Your task to perform on an android device: open chrome privacy settings Image 0: 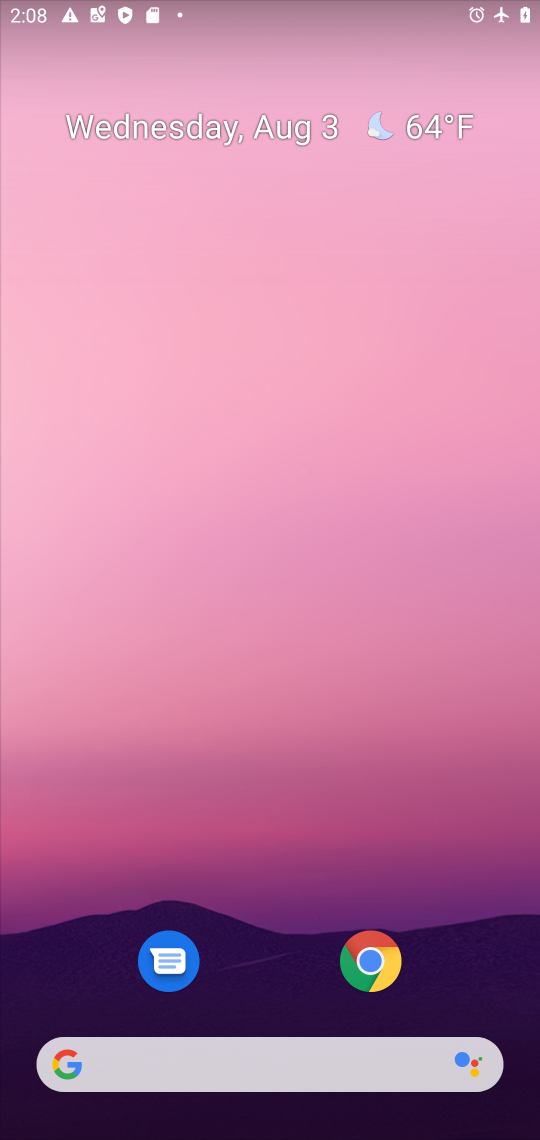
Step 0: click (375, 970)
Your task to perform on an android device: open chrome privacy settings Image 1: 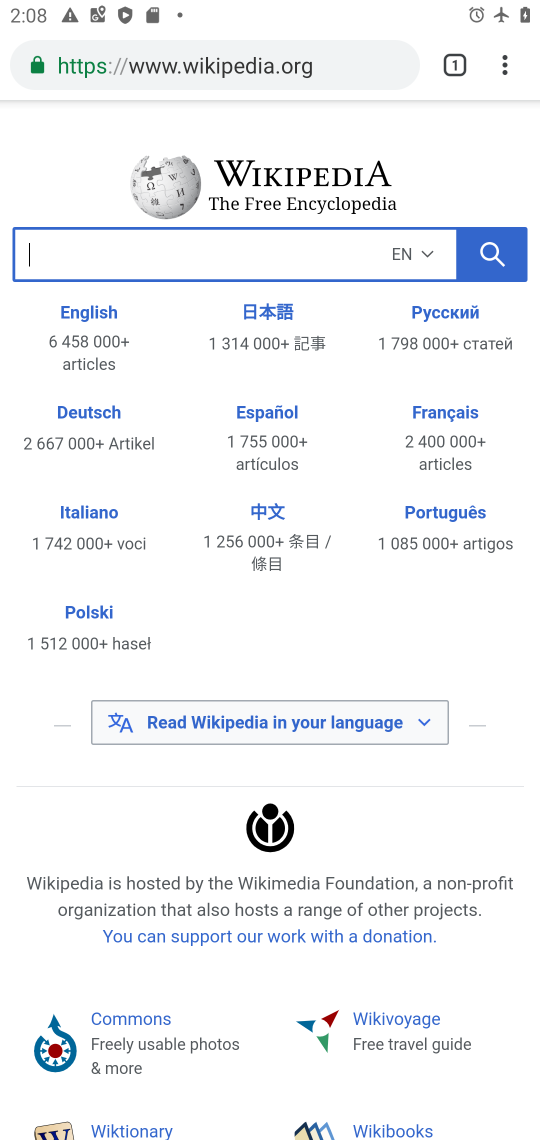
Step 1: click (505, 71)
Your task to perform on an android device: open chrome privacy settings Image 2: 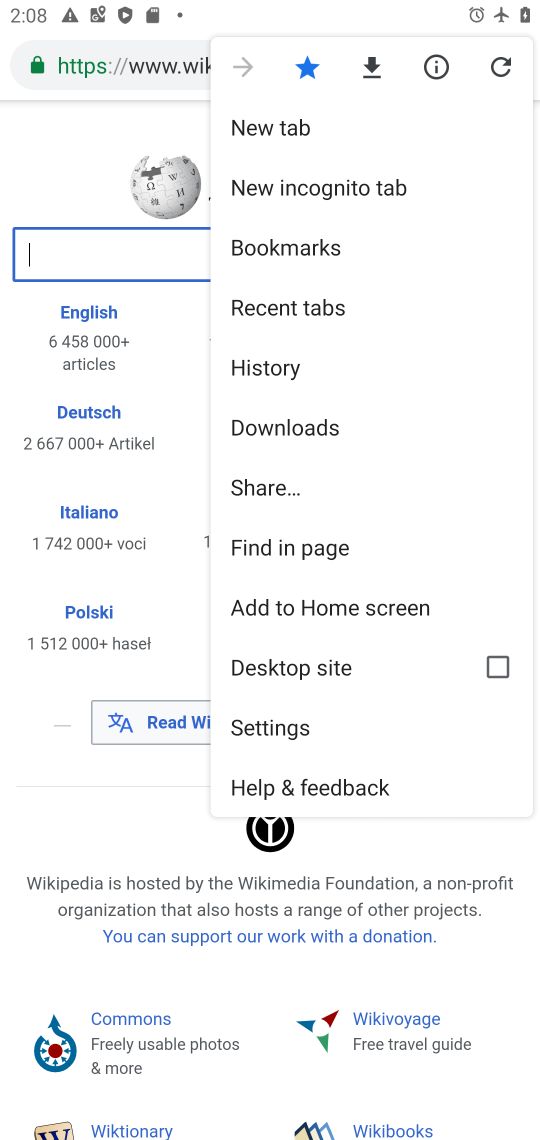
Step 2: click (249, 728)
Your task to perform on an android device: open chrome privacy settings Image 3: 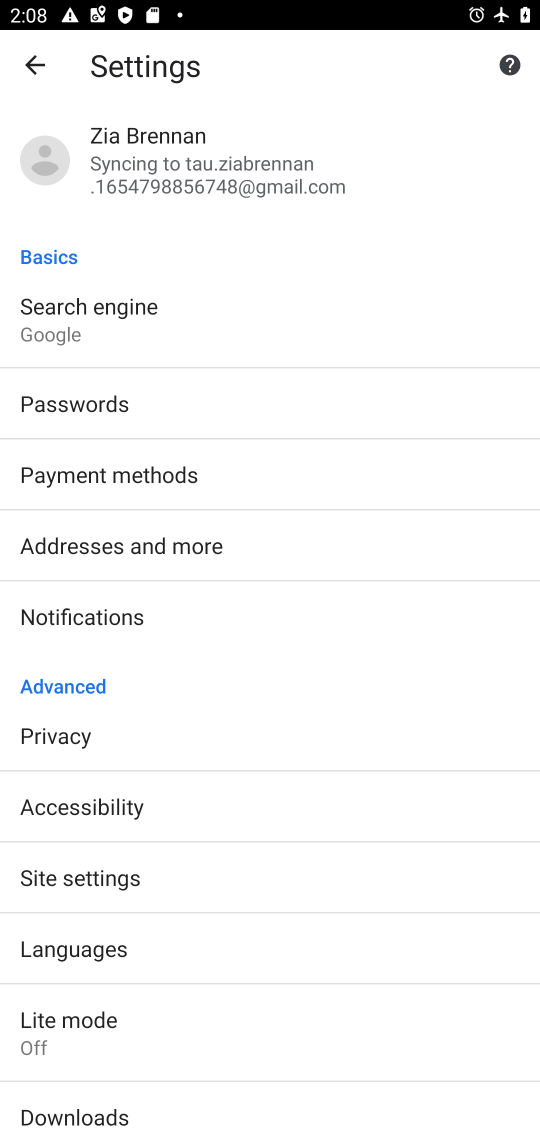
Step 3: click (64, 740)
Your task to perform on an android device: open chrome privacy settings Image 4: 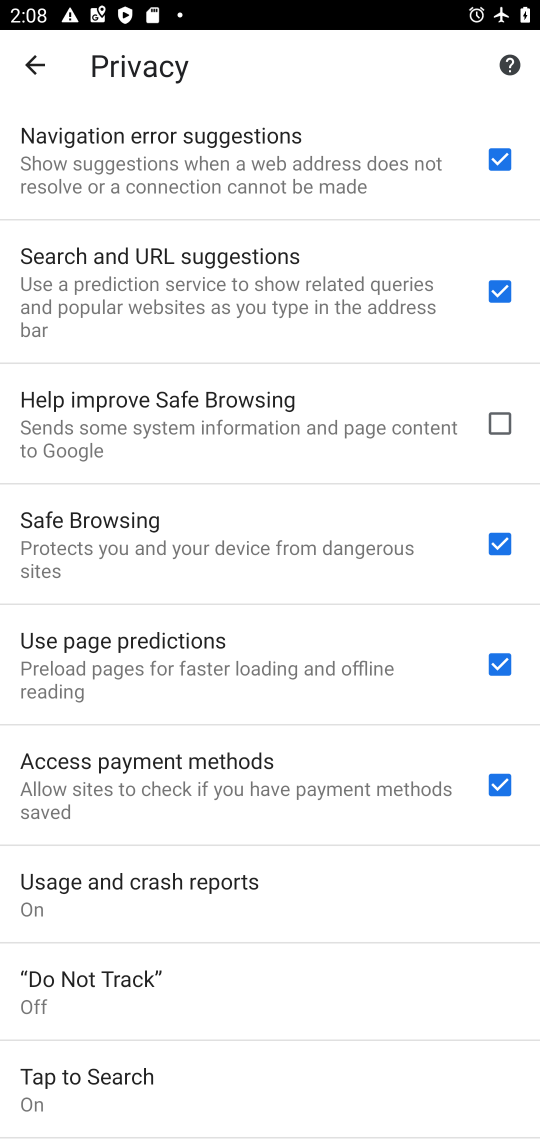
Step 4: task complete